Your task to perform on an android device: Turn on the flashlight Image 0: 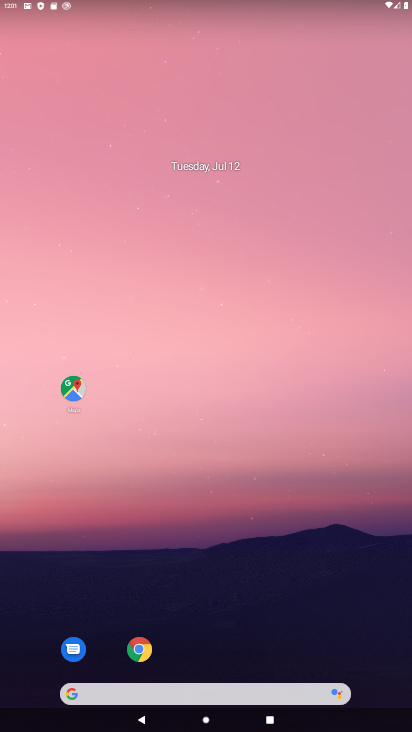
Step 0: drag from (215, 611) to (206, 114)
Your task to perform on an android device: Turn on the flashlight Image 1: 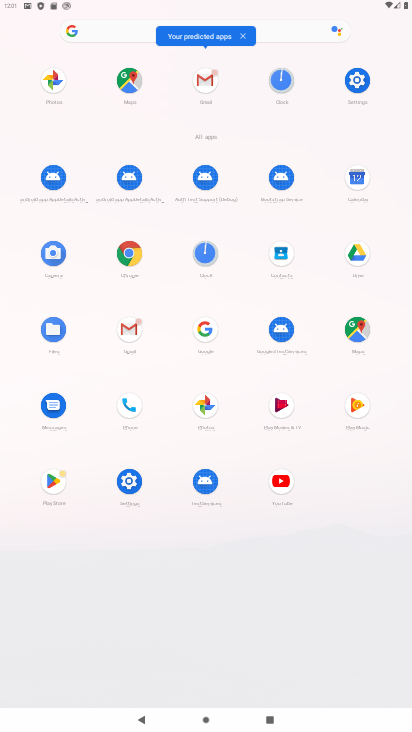
Step 1: click (353, 73)
Your task to perform on an android device: Turn on the flashlight Image 2: 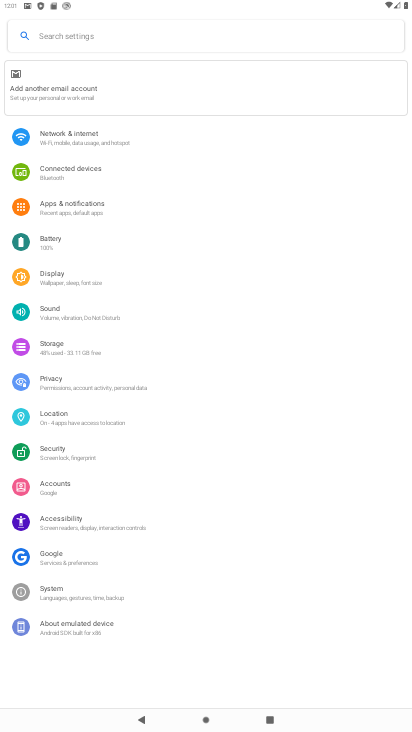
Step 2: click (107, 35)
Your task to perform on an android device: Turn on the flashlight Image 3: 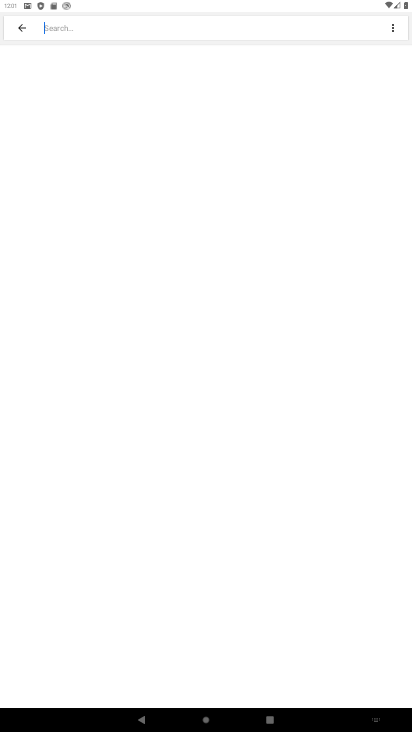
Step 3: type "flashlight"
Your task to perform on an android device: Turn on the flashlight Image 4: 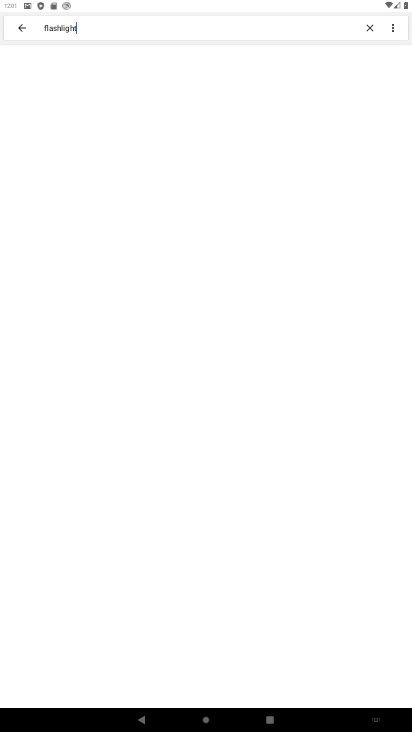
Step 4: task complete